Your task to perform on an android device: turn on airplane mode Image 0: 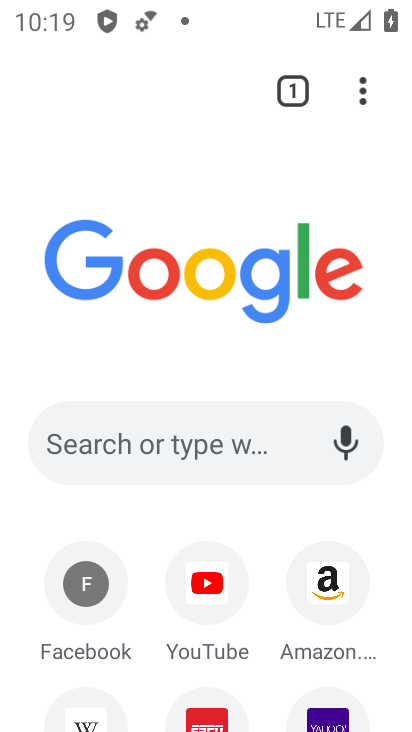
Step 0: press home button
Your task to perform on an android device: turn on airplane mode Image 1: 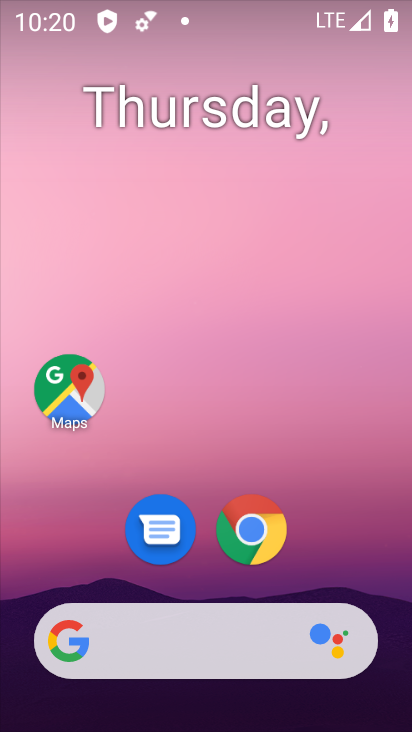
Step 1: drag from (307, 574) to (220, 17)
Your task to perform on an android device: turn on airplane mode Image 2: 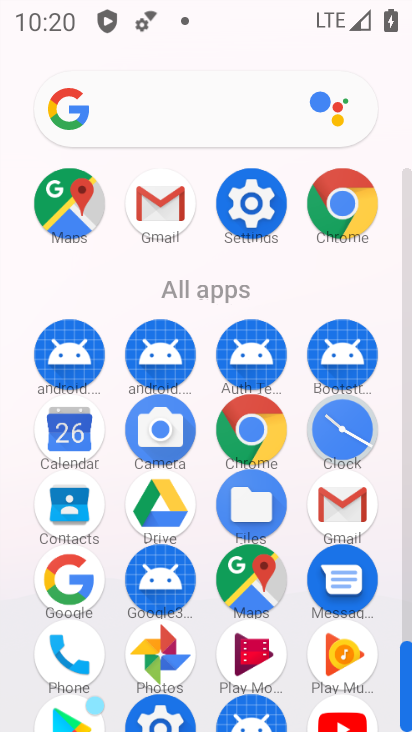
Step 2: click (248, 220)
Your task to perform on an android device: turn on airplane mode Image 3: 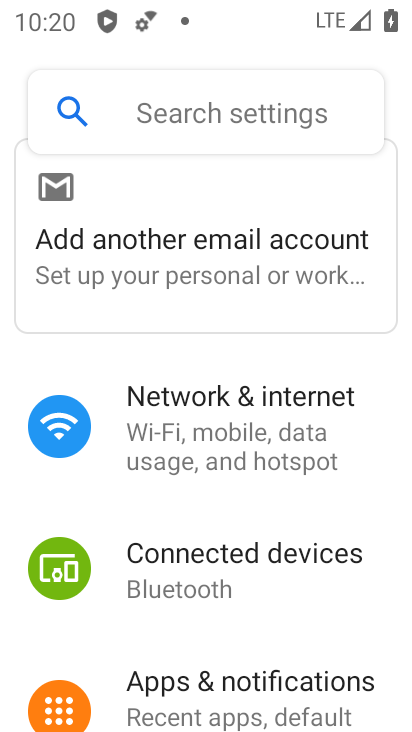
Step 3: click (201, 422)
Your task to perform on an android device: turn on airplane mode Image 4: 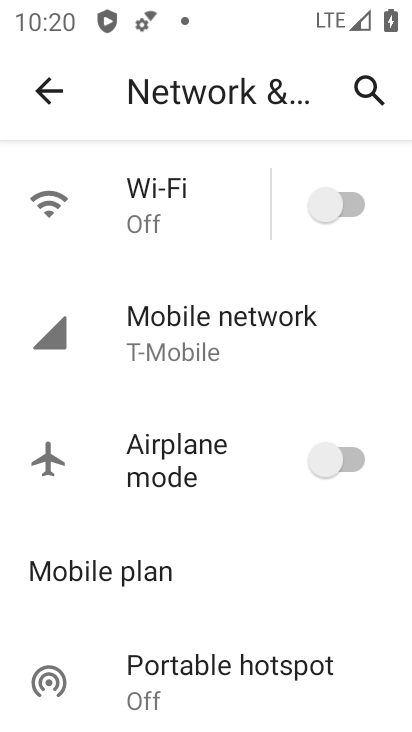
Step 4: click (357, 470)
Your task to perform on an android device: turn on airplane mode Image 5: 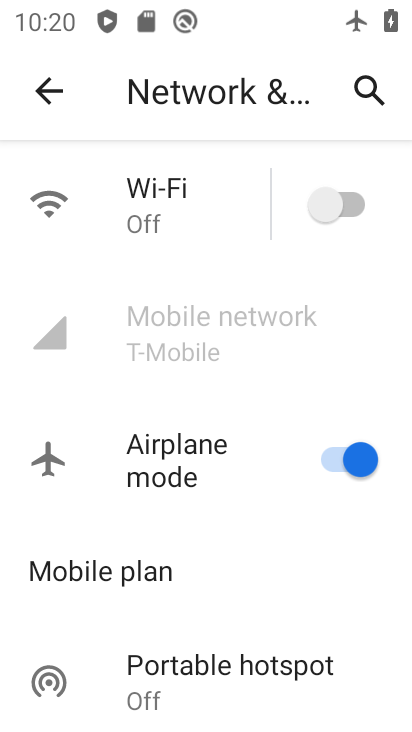
Step 5: task complete